Your task to perform on an android device: Go to Reddit.com Image 0: 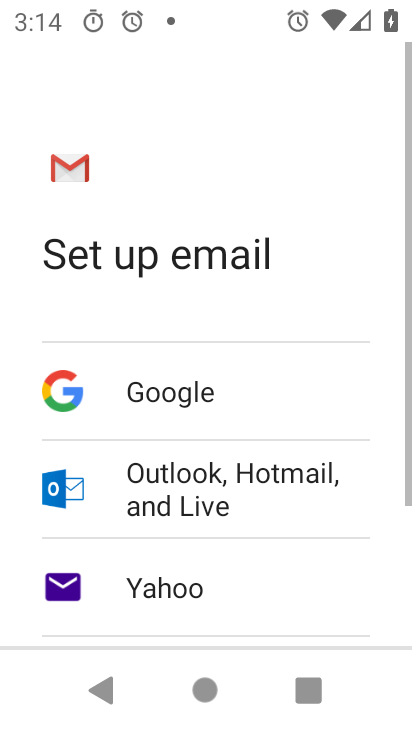
Step 0: press home button
Your task to perform on an android device: Go to Reddit.com Image 1: 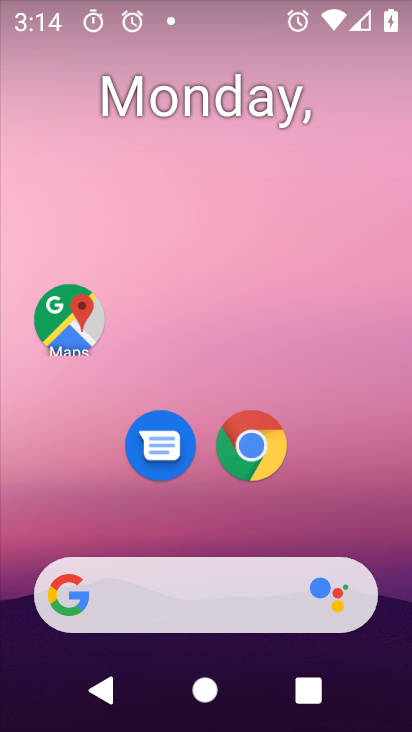
Step 1: click (253, 437)
Your task to perform on an android device: Go to Reddit.com Image 2: 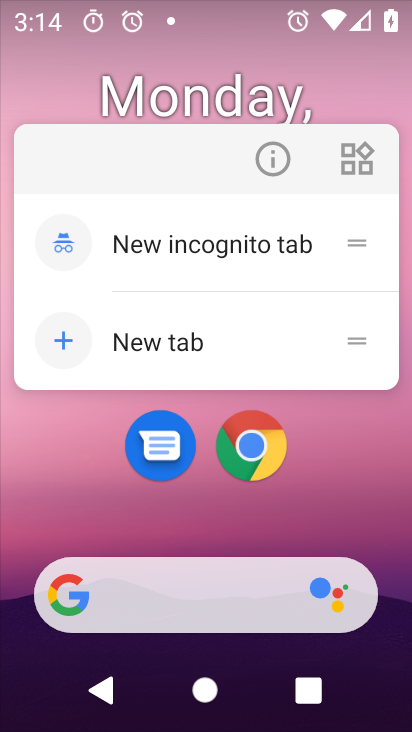
Step 2: click (248, 449)
Your task to perform on an android device: Go to Reddit.com Image 3: 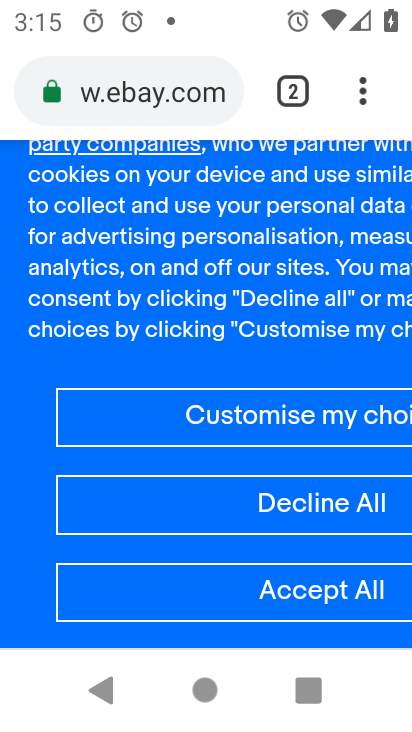
Step 3: click (71, 107)
Your task to perform on an android device: Go to Reddit.com Image 4: 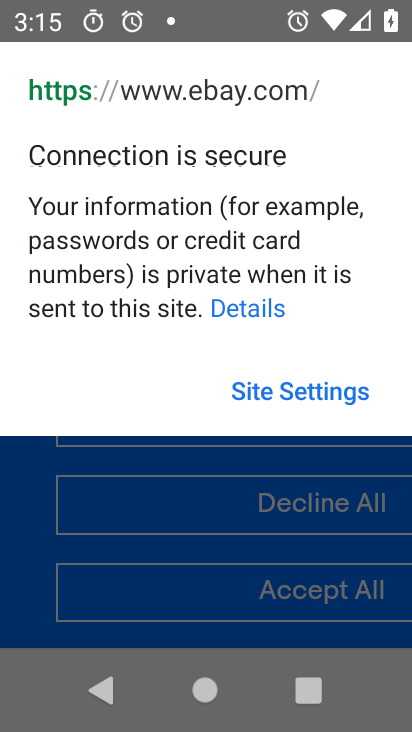
Step 4: click (346, 495)
Your task to perform on an android device: Go to Reddit.com Image 5: 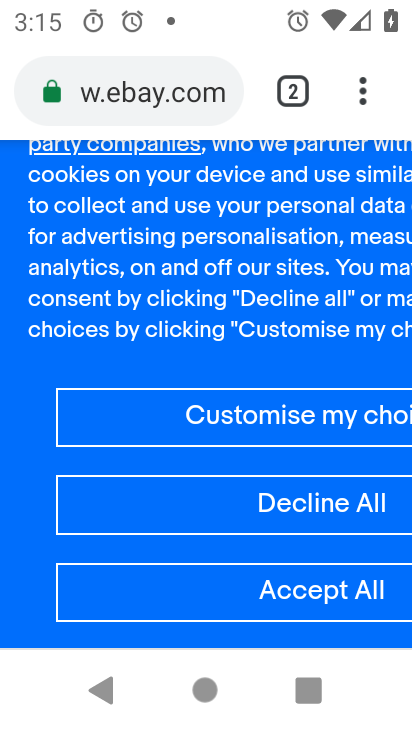
Step 5: click (209, 112)
Your task to perform on an android device: Go to Reddit.com Image 6: 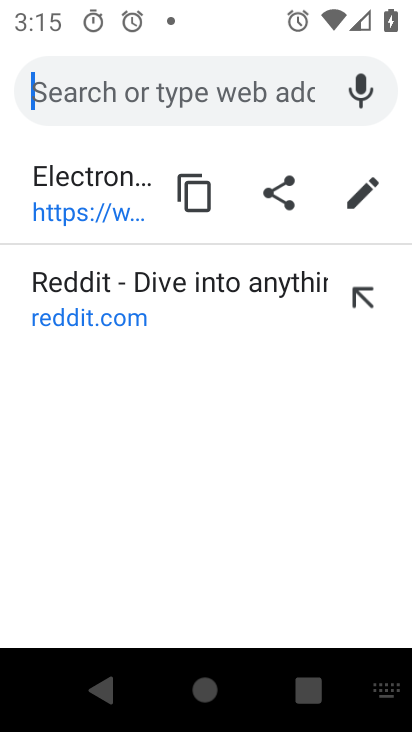
Step 6: click (195, 290)
Your task to perform on an android device: Go to Reddit.com Image 7: 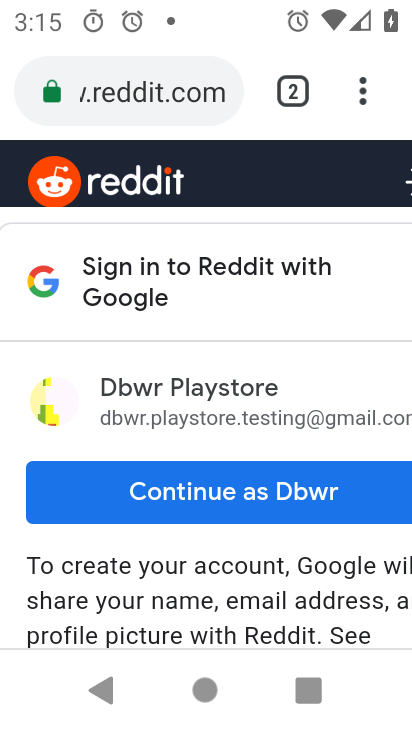
Step 7: task complete